Your task to perform on an android device: change notifications settings Image 0: 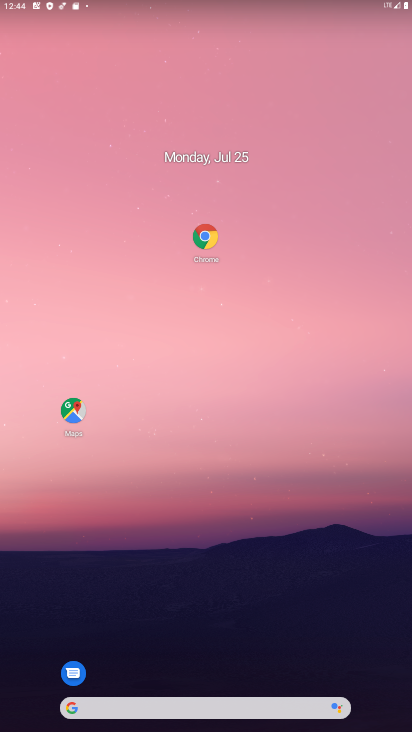
Step 0: drag from (311, 659) to (373, 127)
Your task to perform on an android device: change notifications settings Image 1: 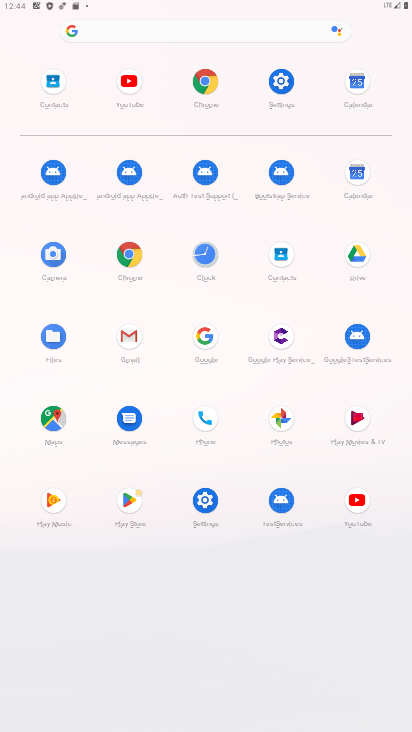
Step 1: click (293, 73)
Your task to perform on an android device: change notifications settings Image 2: 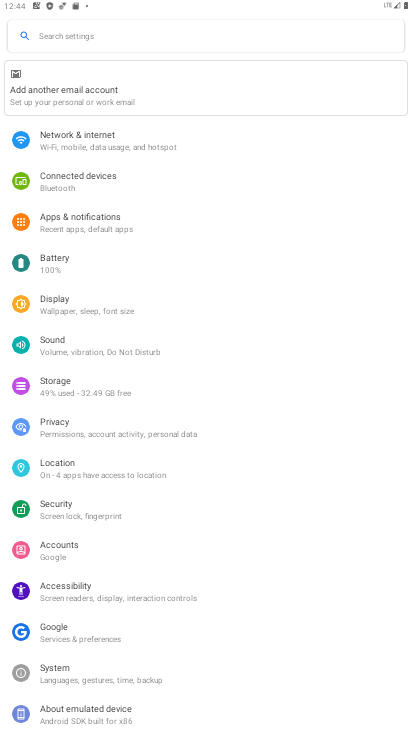
Step 2: click (100, 222)
Your task to perform on an android device: change notifications settings Image 3: 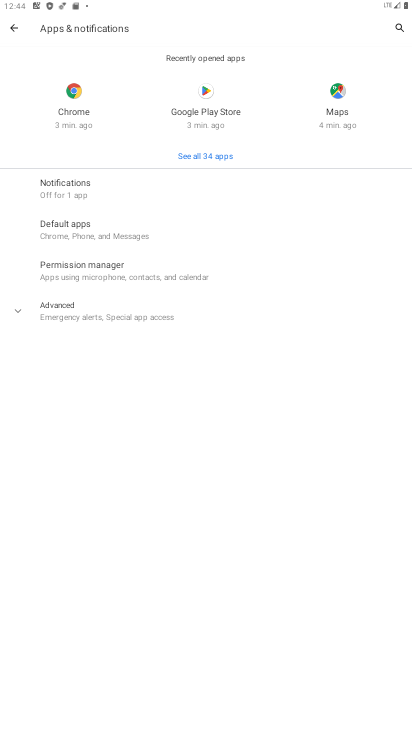
Step 3: click (239, 193)
Your task to perform on an android device: change notifications settings Image 4: 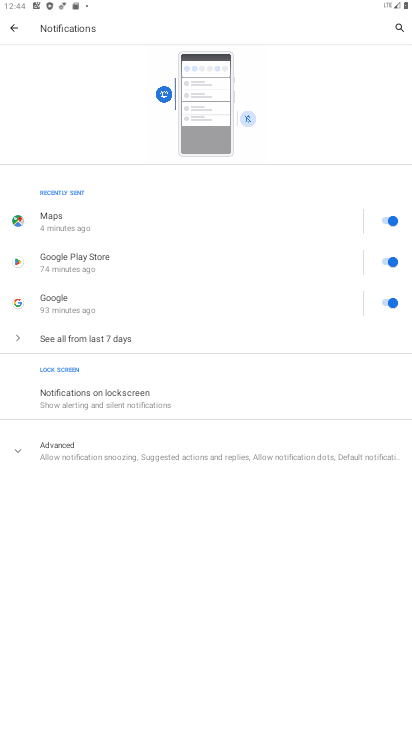
Step 4: click (384, 224)
Your task to perform on an android device: change notifications settings Image 5: 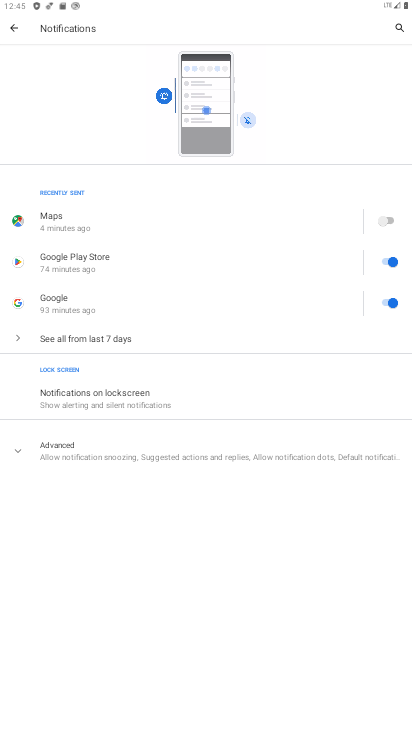
Step 5: task complete